Your task to perform on an android device: turn on notifications settings in the gmail app Image 0: 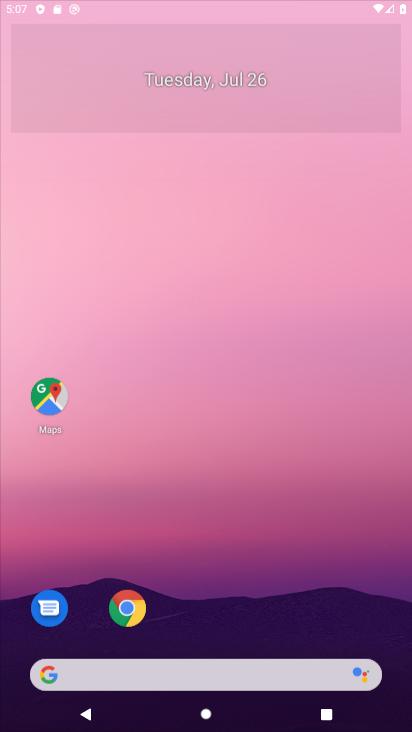
Step 0: press home button
Your task to perform on an android device: turn on notifications settings in the gmail app Image 1: 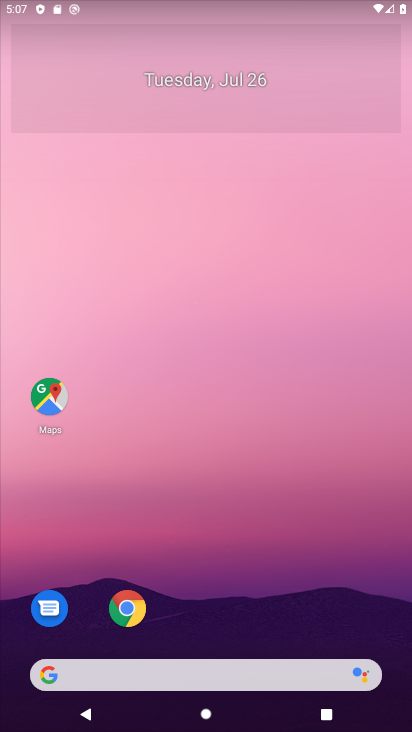
Step 1: drag from (227, 630) to (276, 155)
Your task to perform on an android device: turn on notifications settings in the gmail app Image 2: 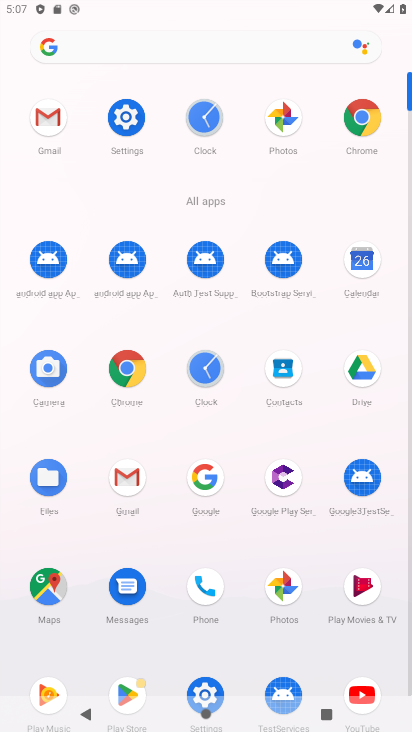
Step 2: click (48, 122)
Your task to perform on an android device: turn on notifications settings in the gmail app Image 3: 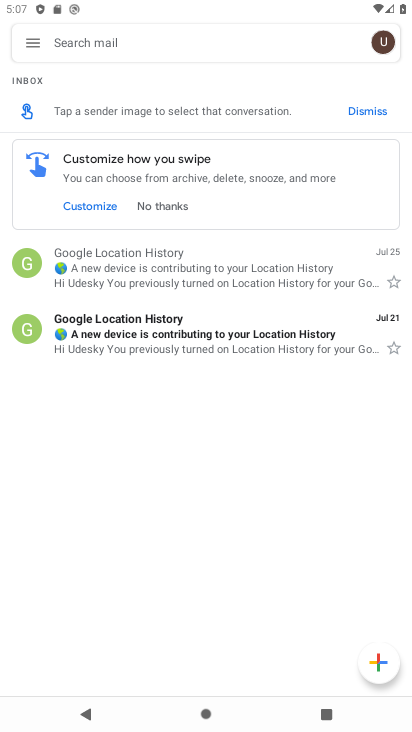
Step 3: click (43, 54)
Your task to perform on an android device: turn on notifications settings in the gmail app Image 4: 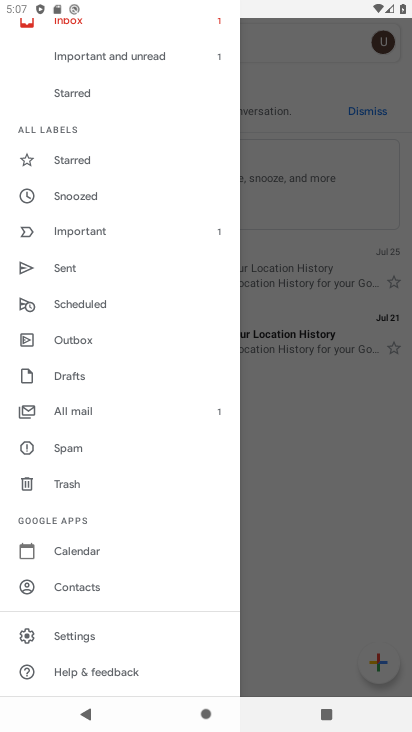
Step 4: click (75, 634)
Your task to perform on an android device: turn on notifications settings in the gmail app Image 5: 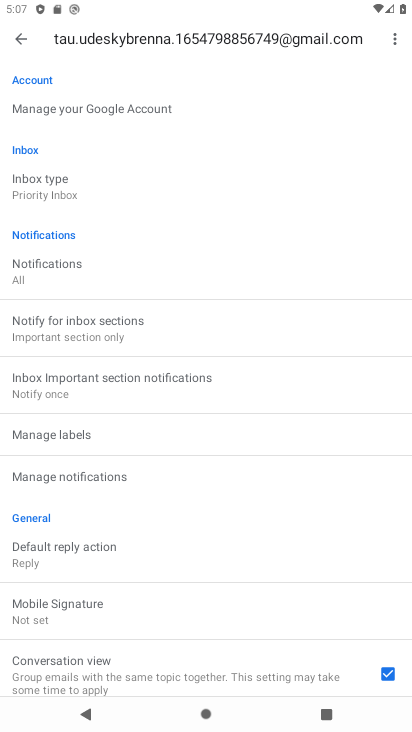
Step 5: click (65, 472)
Your task to perform on an android device: turn on notifications settings in the gmail app Image 6: 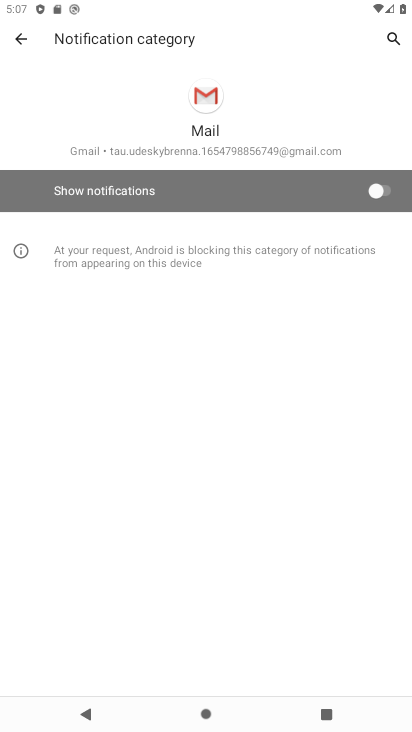
Step 6: click (367, 190)
Your task to perform on an android device: turn on notifications settings in the gmail app Image 7: 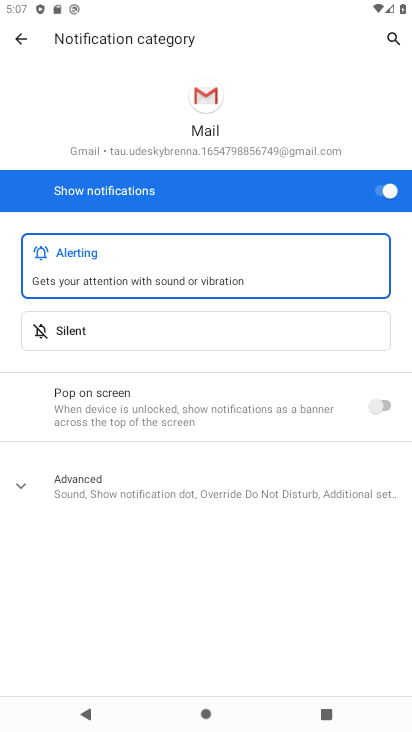
Step 7: task complete